Your task to perform on an android device: Is it going to rain tomorrow? Image 0: 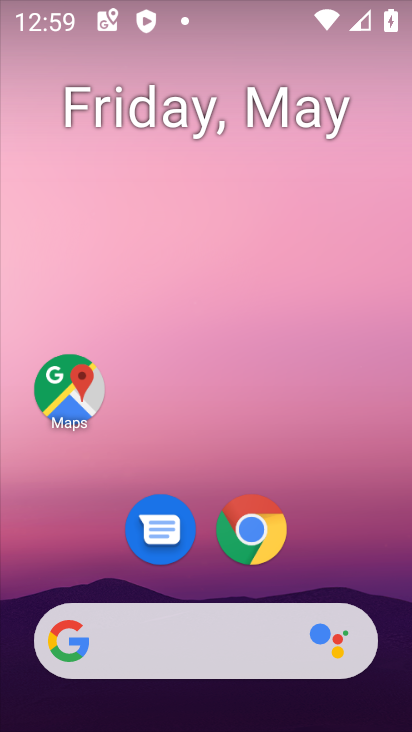
Step 0: drag from (389, 540) to (386, 134)
Your task to perform on an android device: Is it going to rain tomorrow? Image 1: 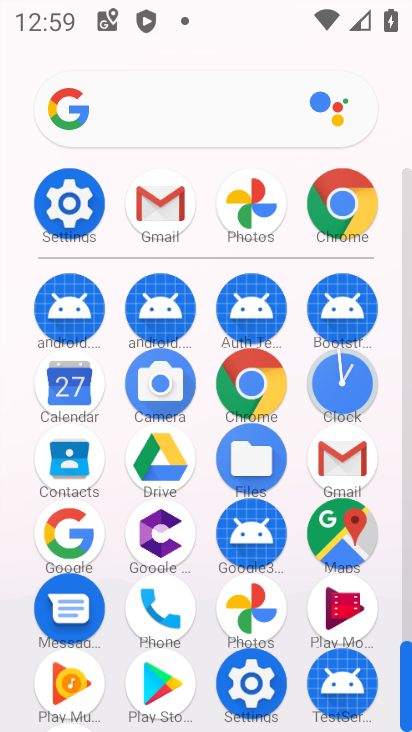
Step 1: click (94, 203)
Your task to perform on an android device: Is it going to rain tomorrow? Image 2: 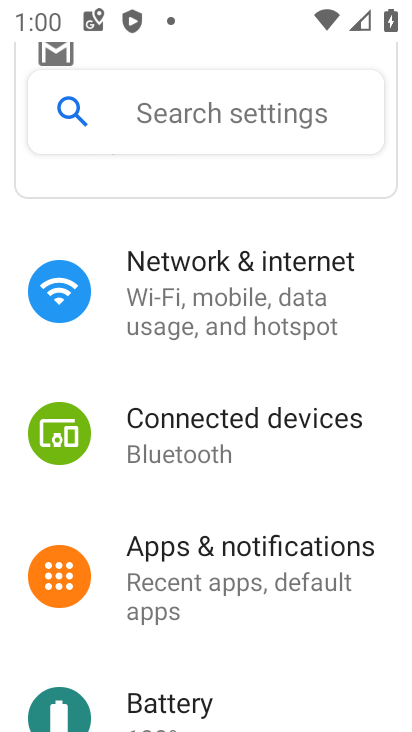
Step 2: drag from (179, 591) to (184, 273)
Your task to perform on an android device: Is it going to rain tomorrow? Image 3: 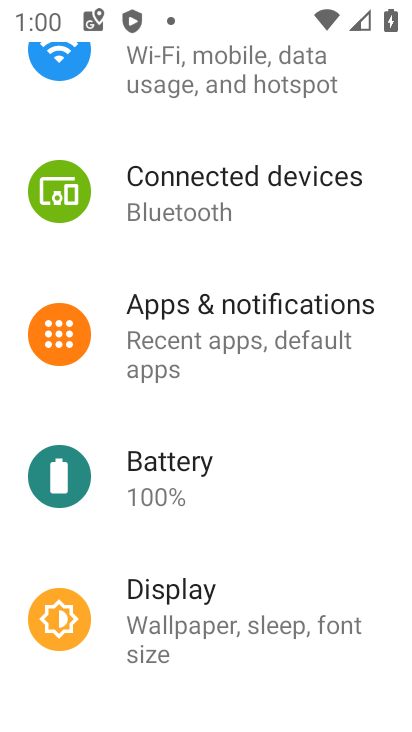
Step 3: drag from (231, 398) to (244, 189)
Your task to perform on an android device: Is it going to rain tomorrow? Image 4: 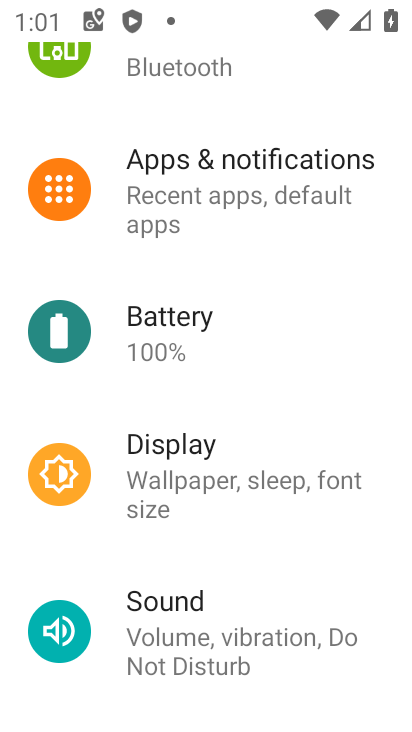
Step 4: press home button
Your task to perform on an android device: Is it going to rain tomorrow? Image 5: 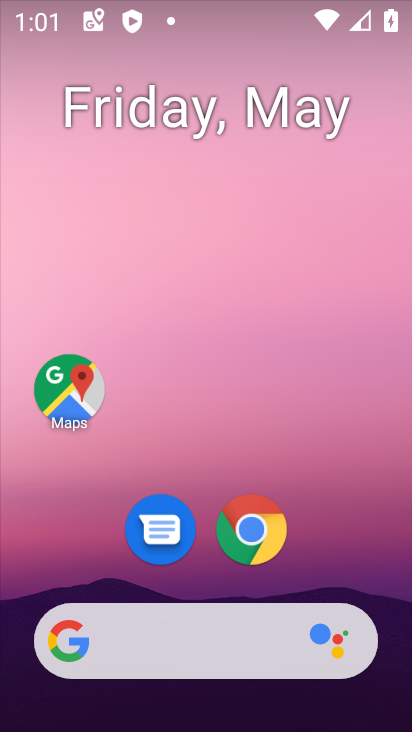
Step 5: drag from (335, 567) to (348, 75)
Your task to perform on an android device: Is it going to rain tomorrow? Image 6: 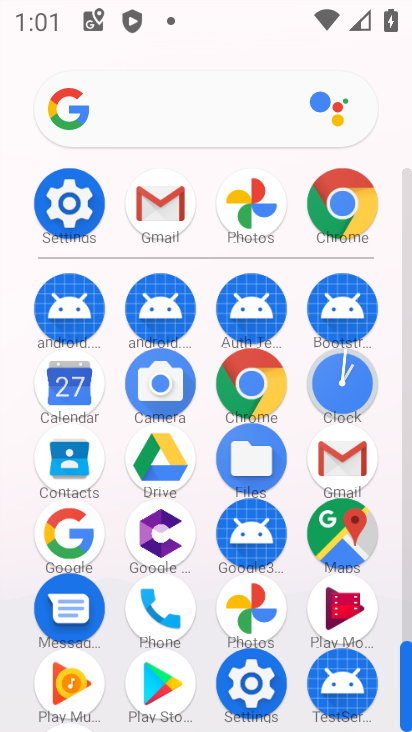
Step 6: click (142, 128)
Your task to perform on an android device: Is it going to rain tomorrow? Image 7: 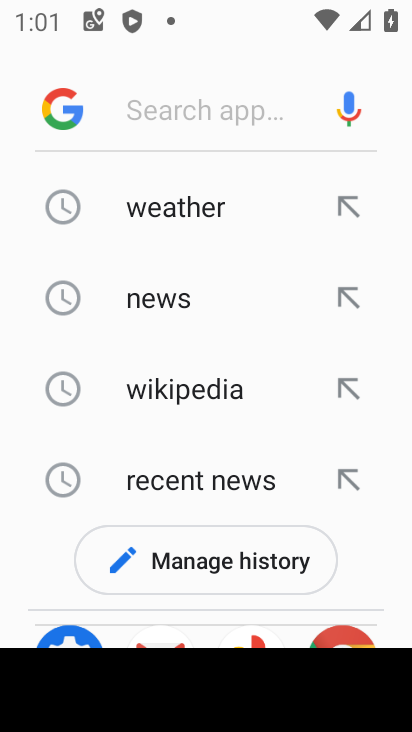
Step 7: click (222, 207)
Your task to perform on an android device: Is it going to rain tomorrow? Image 8: 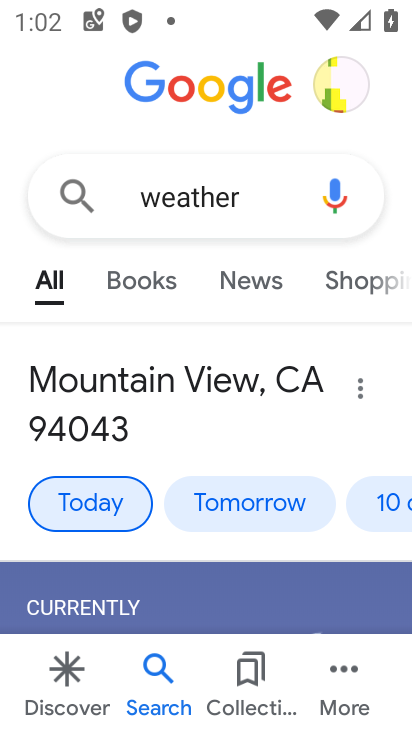
Step 8: click (204, 492)
Your task to perform on an android device: Is it going to rain tomorrow? Image 9: 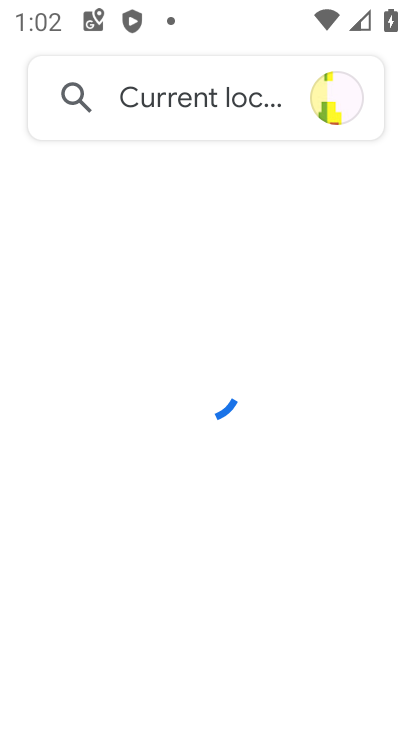
Step 9: task complete